Your task to perform on an android device: open a new tab in the chrome app Image 0: 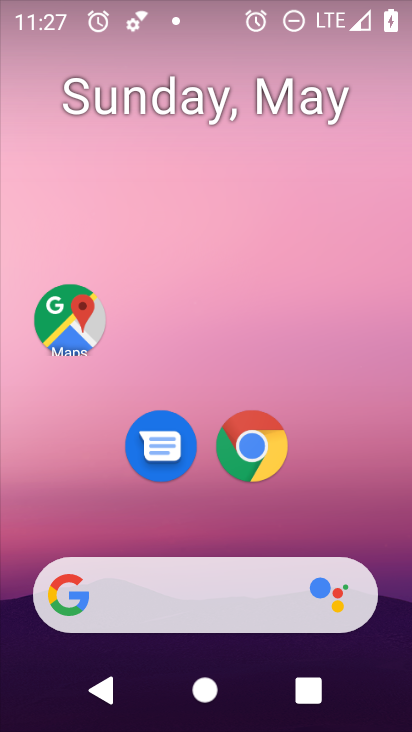
Step 0: drag from (379, 498) to (269, 84)
Your task to perform on an android device: open a new tab in the chrome app Image 1: 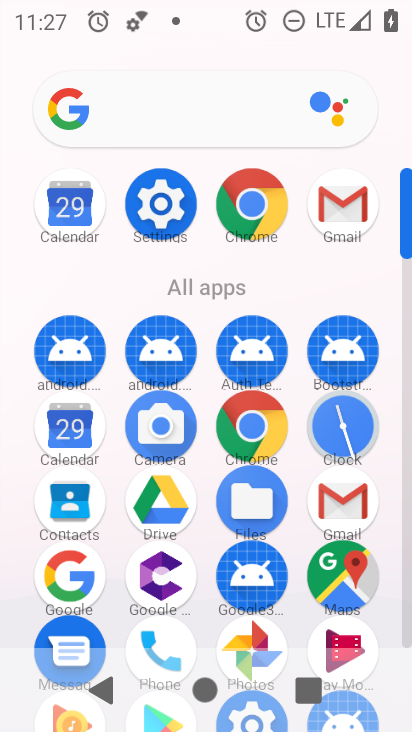
Step 1: drag from (0, 539) to (2, 160)
Your task to perform on an android device: open a new tab in the chrome app Image 2: 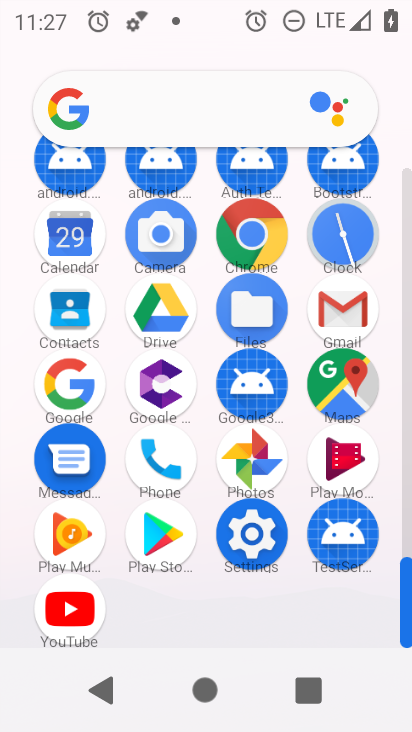
Step 2: click (258, 231)
Your task to perform on an android device: open a new tab in the chrome app Image 3: 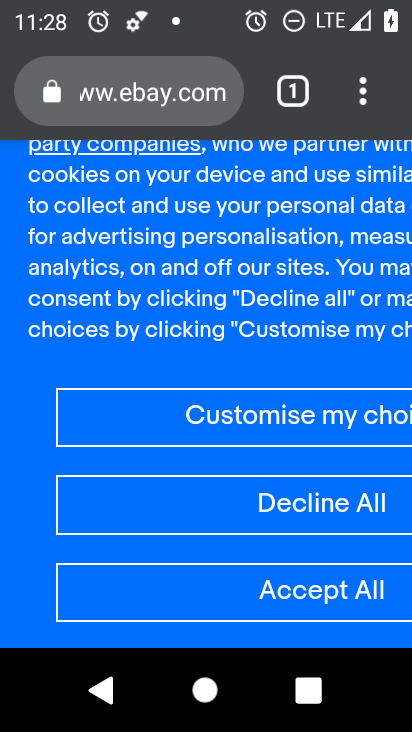
Step 3: task complete